Your task to perform on an android device: Open privacy settings Image 0: 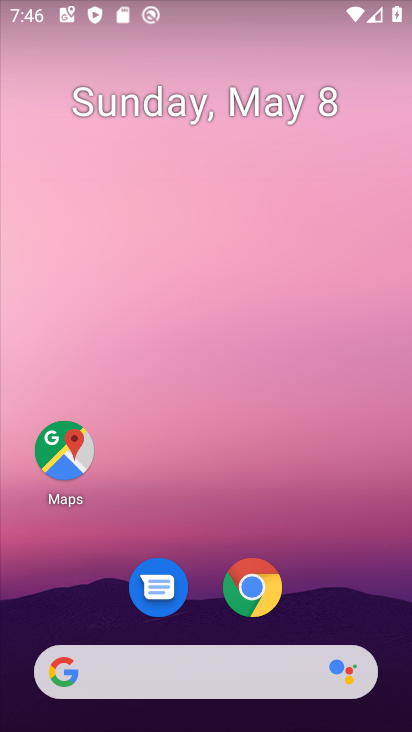
Step 0: drag from (316, 611) to (256, 77)
Your task to perform on an android device: Open privacy settings Image 1: 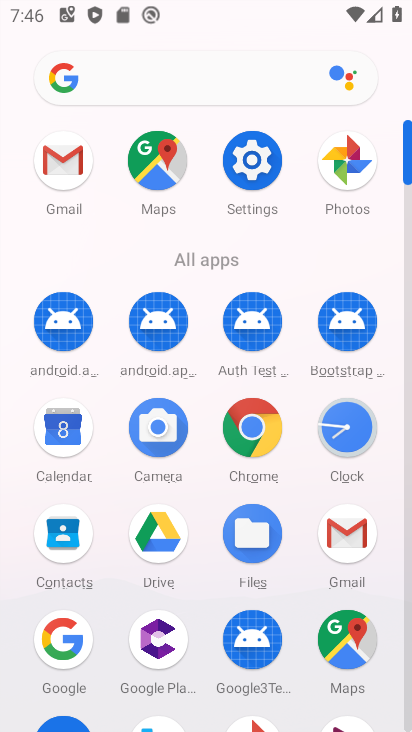
Step 1: click (251, 157)
Your task to perform on an android device: Open privacy settings Image 2: 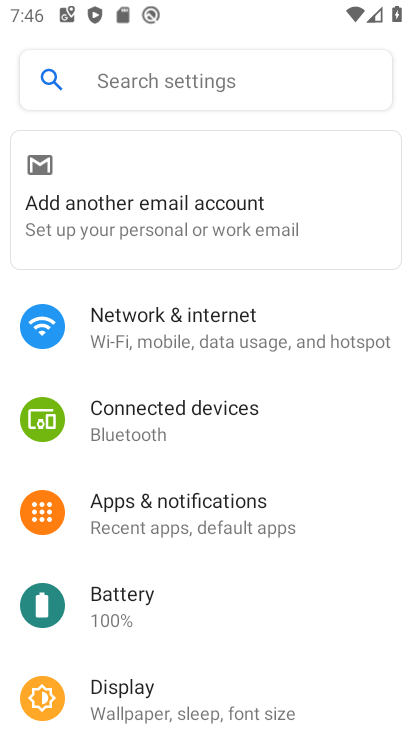
Step 2: drag from (214, 587) to (267, 484)
Your task to perform on an android device: Open privacy settings Image 3: 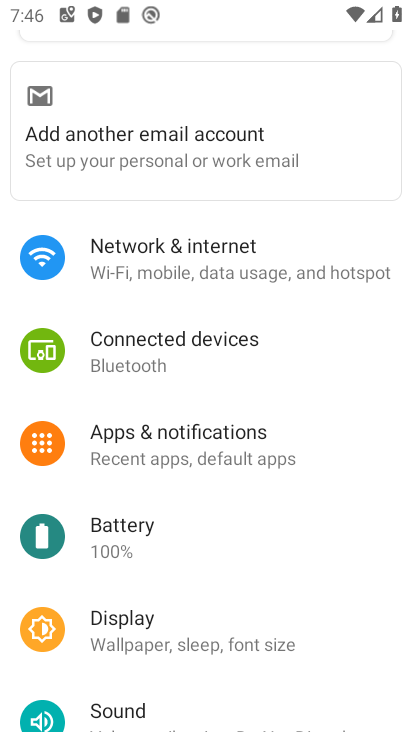
Step 3: drag from (185, 594) to (228, 457)
Your task to perform on an android device: Open privacy settings Image 4: 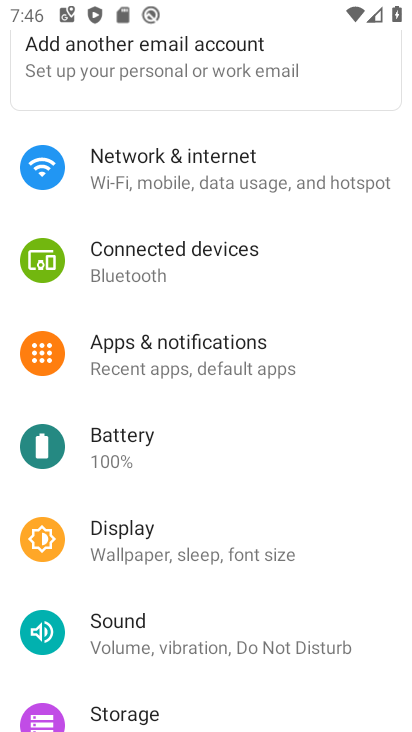
Step 4: drag from (178, 626) to (292, 465)
Your task to perform on an android device: Open privacy settings Image 5: 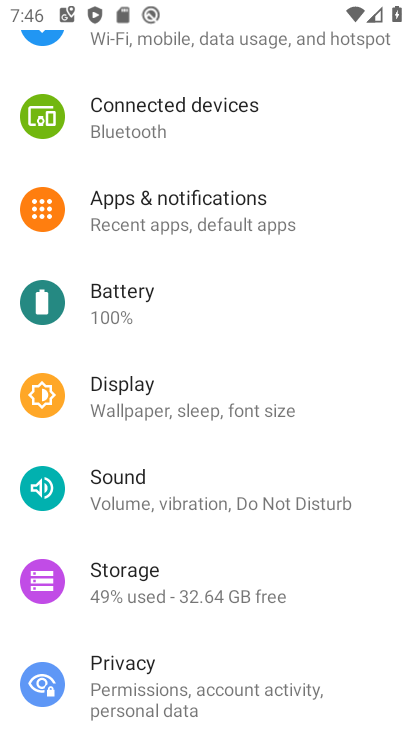
Step 5: drag from (178, 616) to (259, 482)
Your task to perform on an android device: Open privacy settings Image 6: 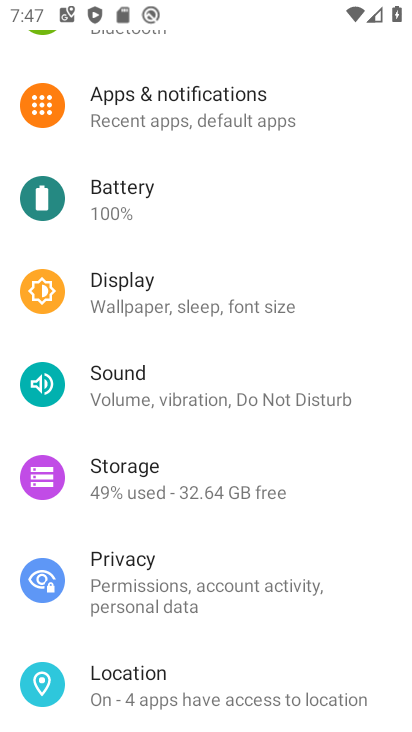
Step 6: click (123, 559)
Your task to perform on an android device: Open privacy settings Image 7: 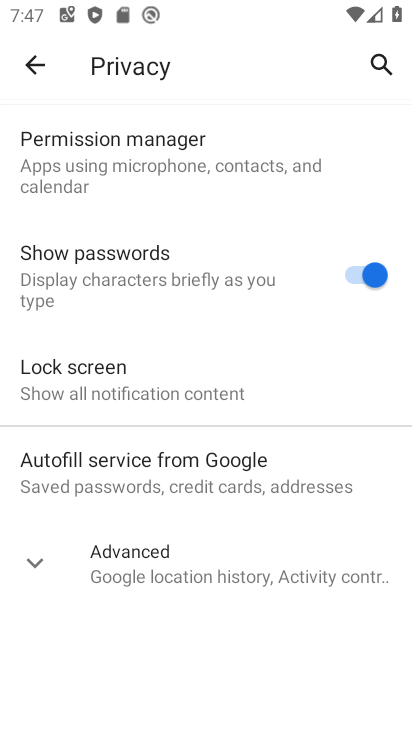
Step 7: task complete